Your task to perform on an android device: Open calendar and show me the first week of next month Image 0: 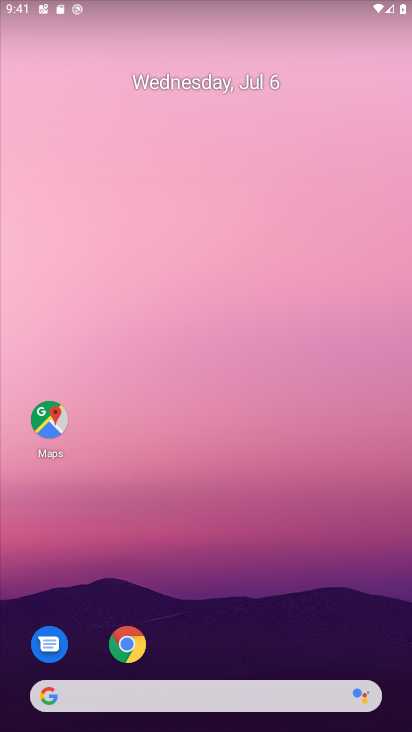
Step 0: drag from (253, 645) to (197, 56)
Your task to perform on an android device: Open calendar and show me the first week of next month Image 1: 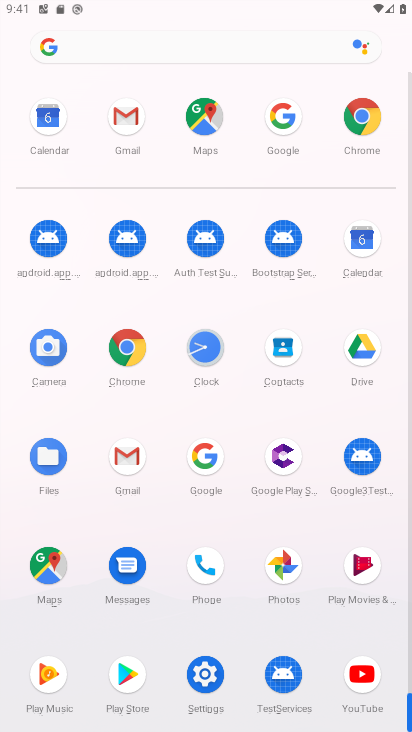
Step 1: drag from (204, 540) to (204, 367)
Your task to perform on an android device: Open calendar and show me the first week of next month Image 2: 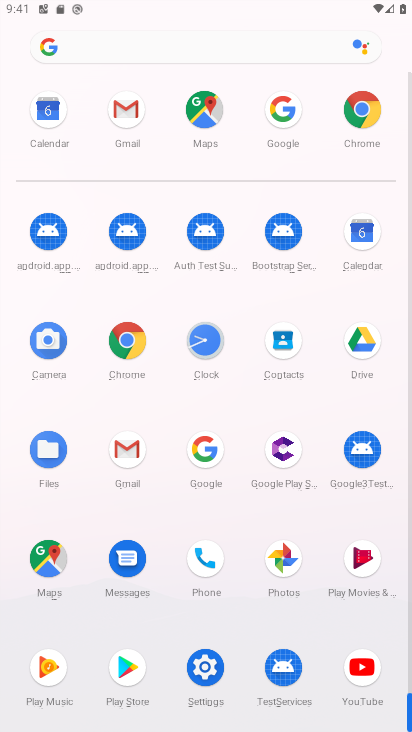
Step 2: click (366, 235)
Your task to perform on an android device: Open calendar and show me the first week of next month Image 3: 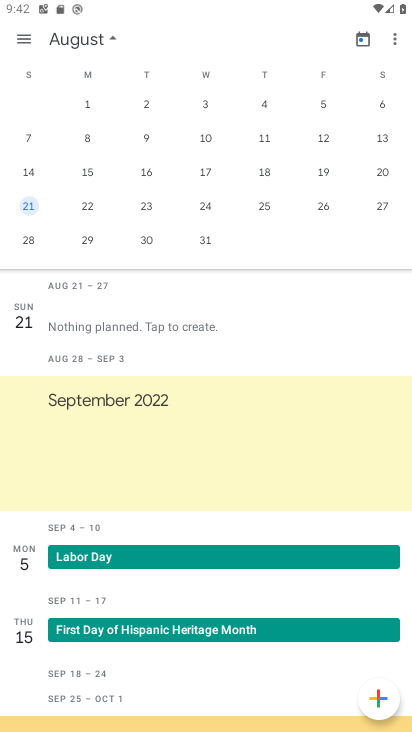
Step 3: click (83, 106)
Your task to perform on an android device: Open calendar and show me the first week of next month Image 4: 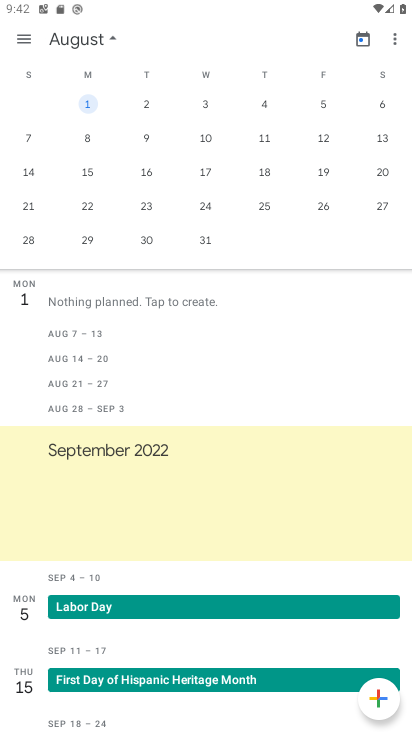
Step 4: task complete